Your task to perform on an android device: Open the web browser Image 0: 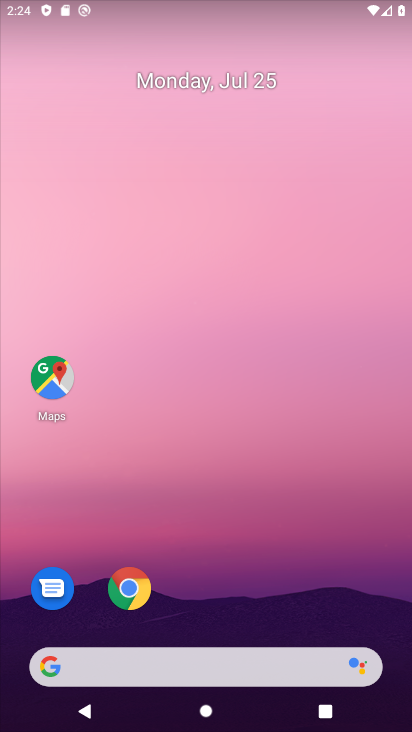
Step 0: drag from (307, 556) to (244, 41)
Your task to perform on an android device: Open the web browser Image 1: 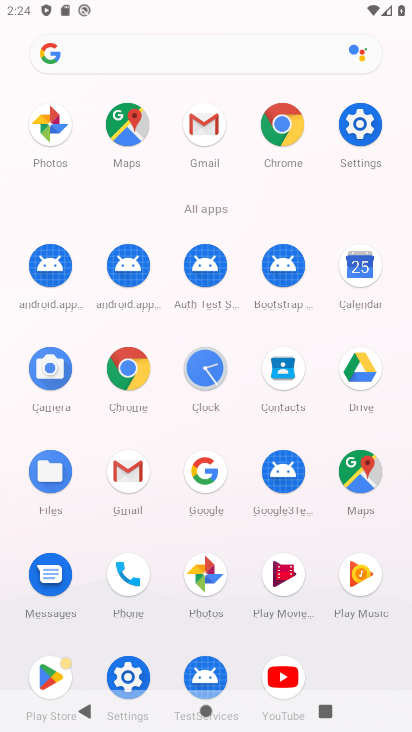
Step 1: click (271, 119)
Your task to perform on an android device: Open the web browser Image 2: 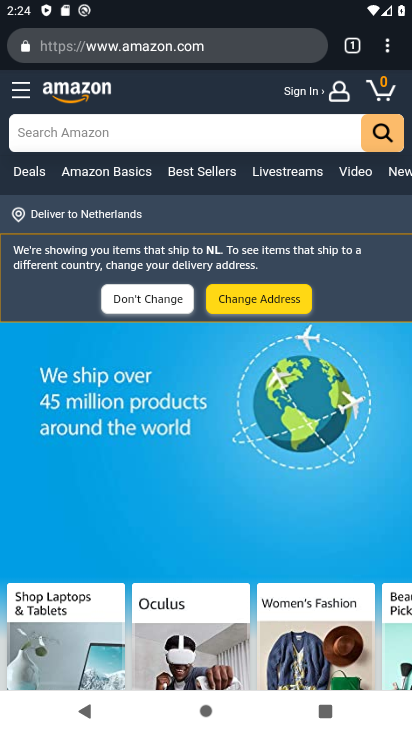
Step 2: task complete